Your task to perform on an android device: change notifications settings Image 0: 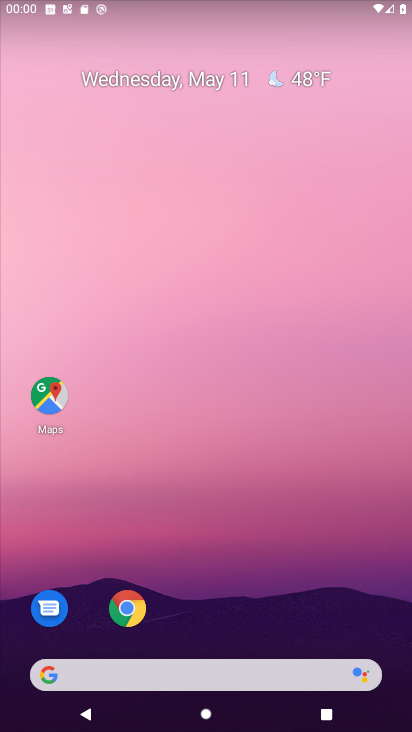
Step 0: drag from (249, 621) to (242, 149)
Your task to perform on an android device: change notifications settings Image 1: 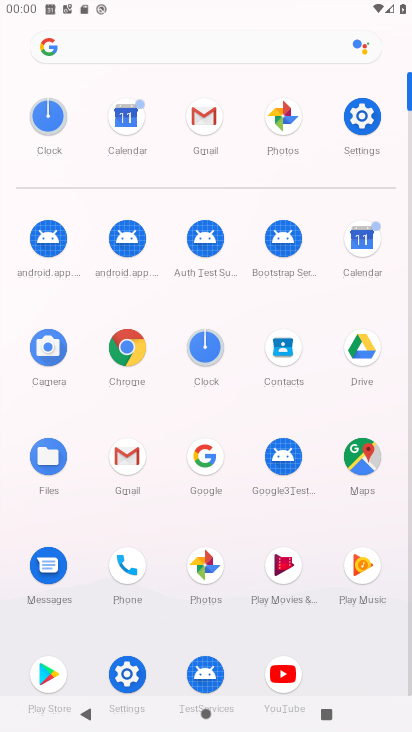
Step 1: click (373, 126)
Your task to perform on an android device: change notifications settings Image 2: 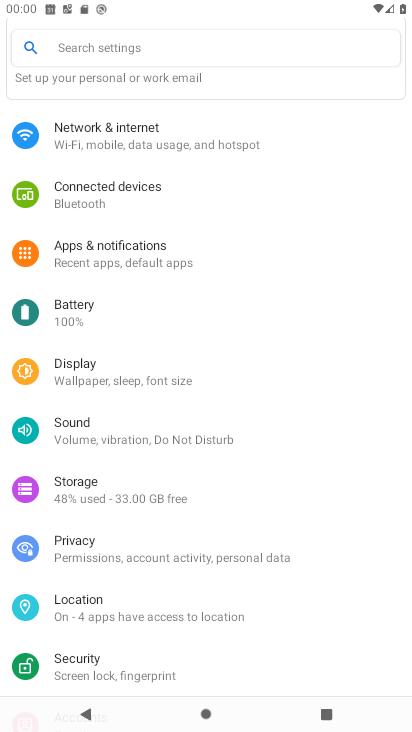
Step 2: click (111, 254)
Your task to perform on an android device: change notifications settings Image 3: 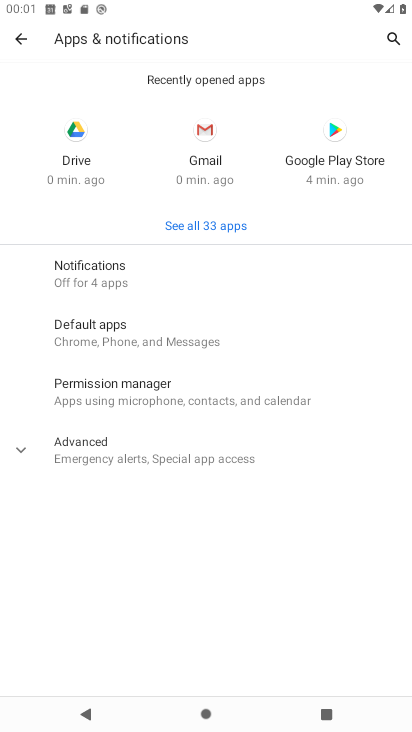
Step 3: click (112, 276)
Your task to perform on an android device: change notifications settings Image 4: 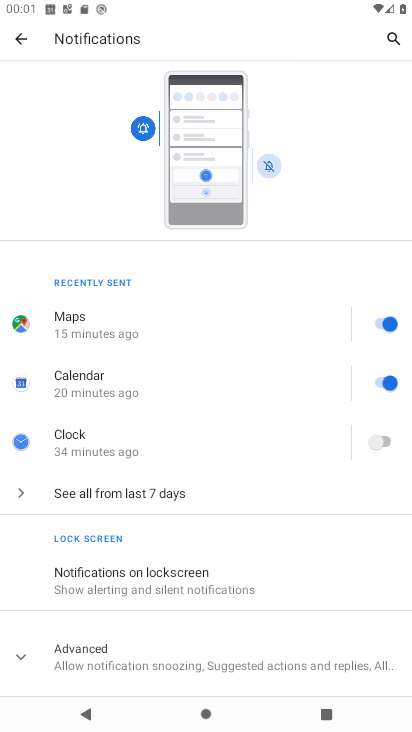
Step 4: click (382, 380)
Your task to perform on an android device: change notifications settings Image 5: 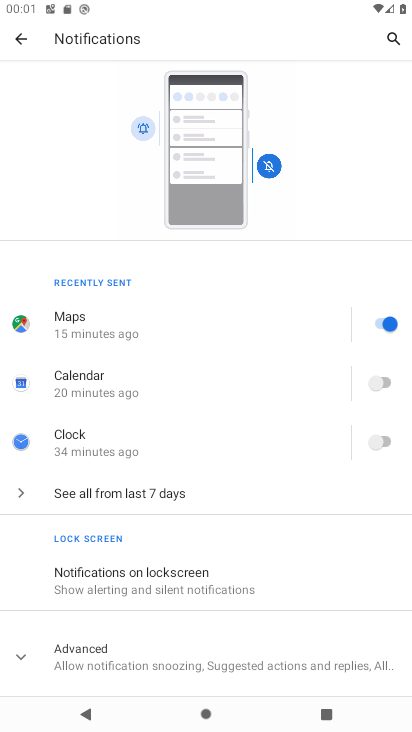
Step 5: task complete